Your task to perform on an android device: Open internet settings Image 0: 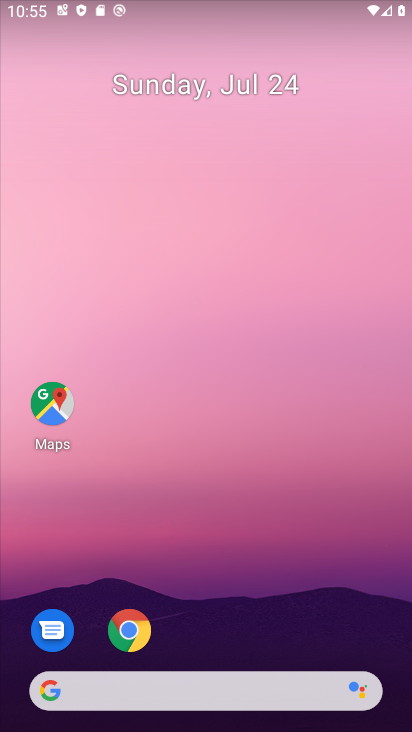
Step 0: drag from (227, 635) to (209, 562)
Your task to perform on an android device: Open internet settings Image 1: 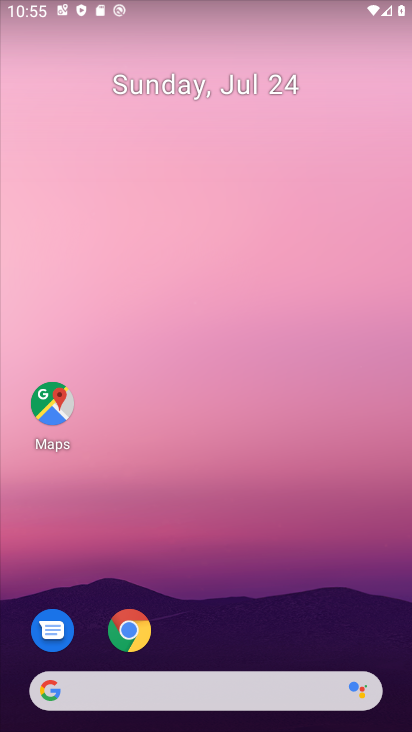
Step 1: drag from (212, 603) to (187, 310)
Your task to perform on an android device: Open internet settings Image 2: 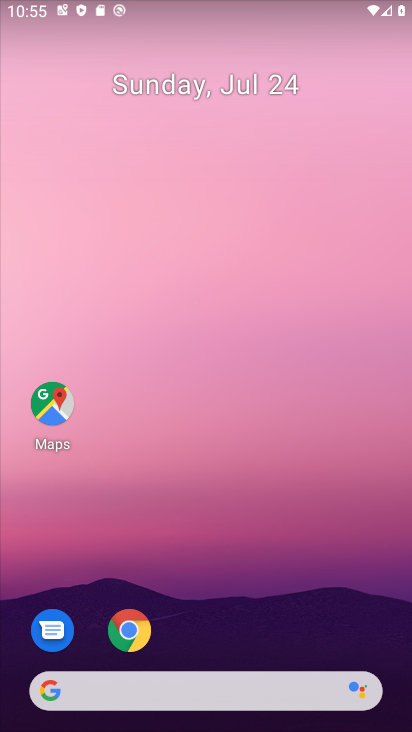
Step 2: drag from (203, 647) to (215, 133)
Your task to perform on an android device: Open internet settings Image 3: 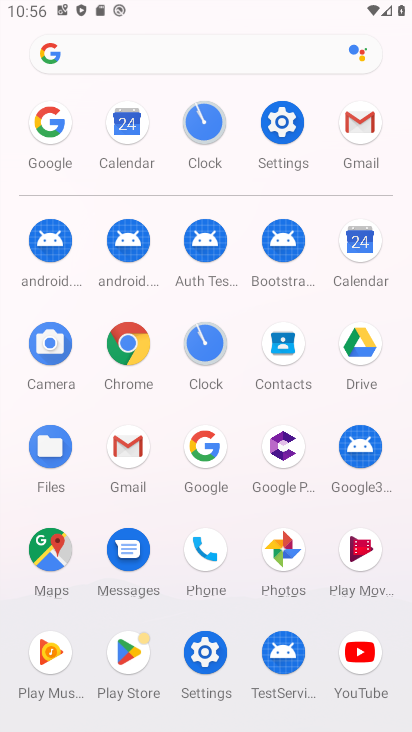
Step 3: click (299, 133)
Your task to perform on an android device: Open internet settings Image 4: 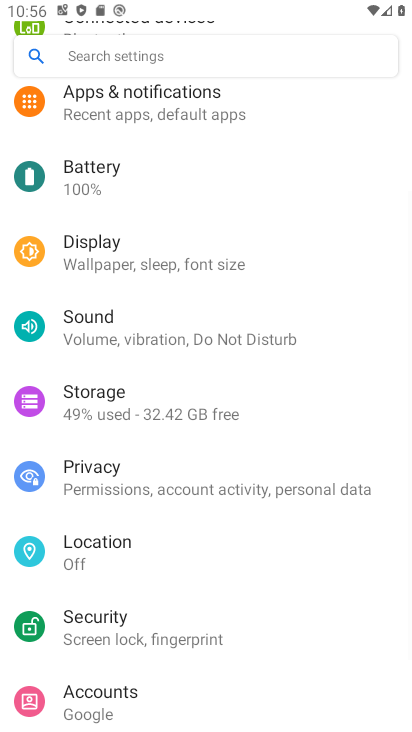
Step 4: drag from (185, 205) to (224, 630)
Your task to perform on an android device: Open internet settings Image 5: 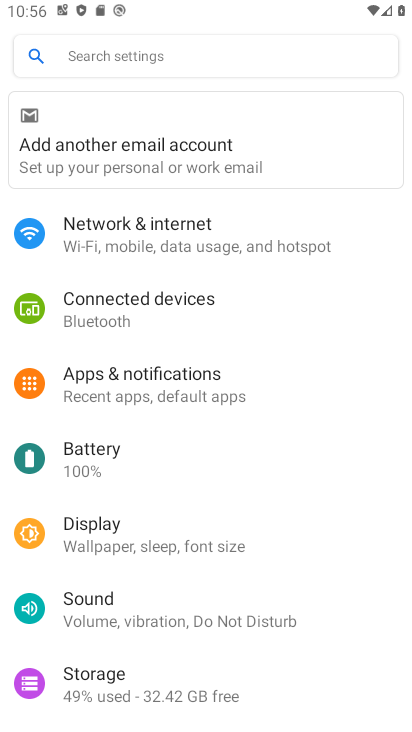
Step 5: click (107, 216)
Your task to perform on an android device: Open internet settings Image 6: 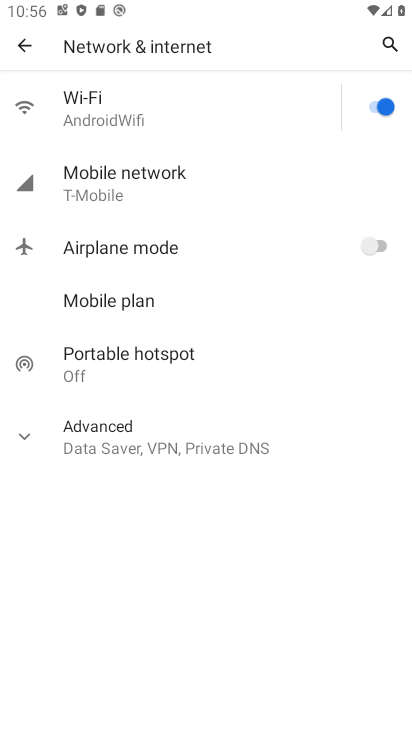
Step 6: task complete